Your task to perform on an android device: toggle airplane mode Image 0: 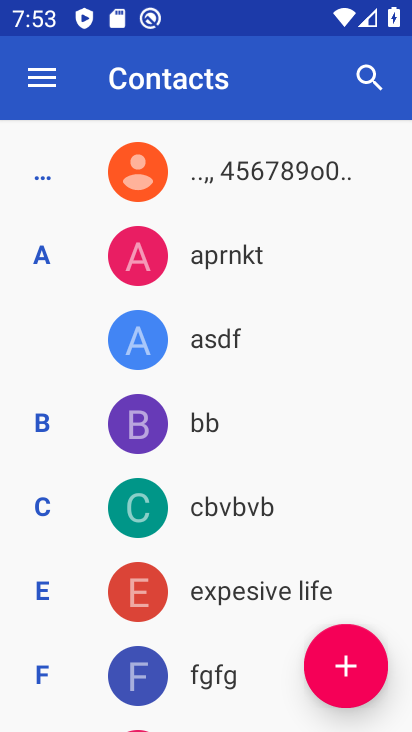
Step 0: press home button
Your task to perform on an android device: toggle airplane mode Image 1: 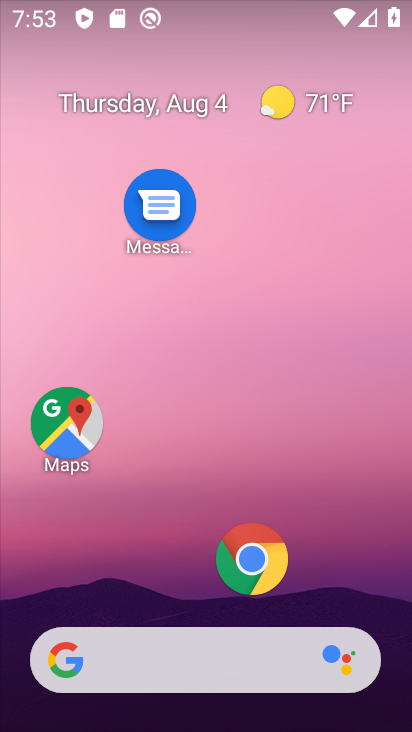
Step 1: drag from (201, 628) to (174, 14)
Your task to perform on an android device: toggle airplane mode Image 2: 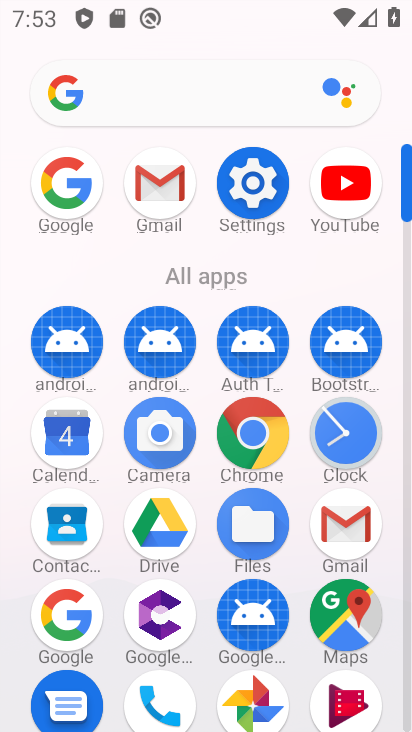
Step 2: click (252, 181)
Your task to perform on an android device: toggle airplane mode Image 3: 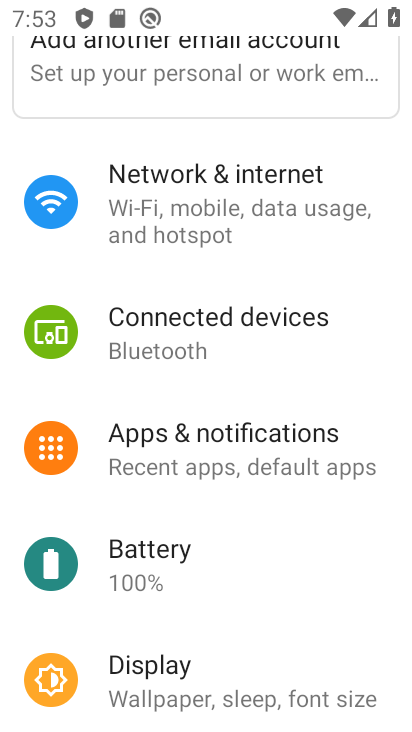
Step 3: drag from (294, 104) to (222, 0)
Your task to perform on an android device: toggle airplane mode Image 4: 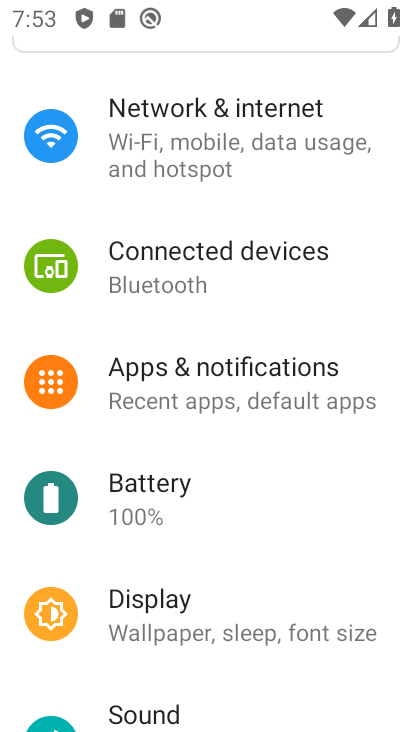
Step 4: click (222, 119)
Your task to perform on an android device: toggle airplane mode Image 5: 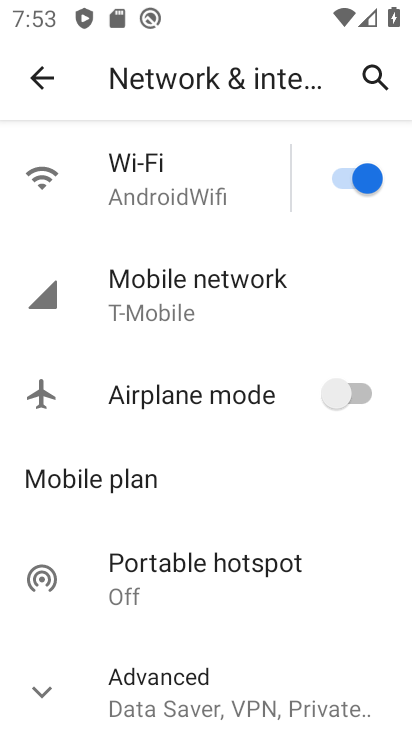
Step 5: click (336, 398)
Your task to perform on an android device: toggle airplane mode Image 6: 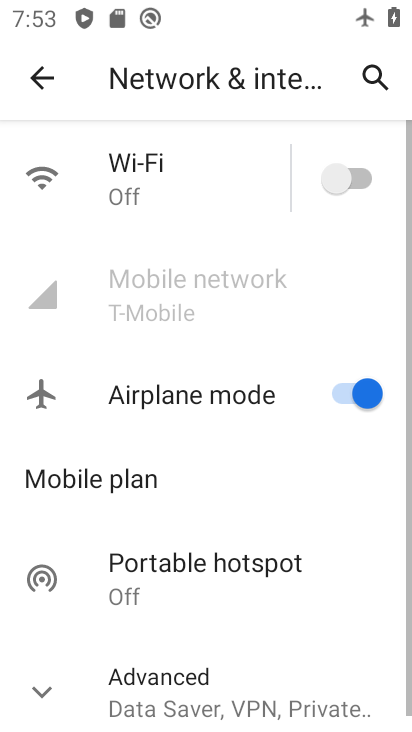
Step 6: task complete